Your task to perform on an android device: turn off notifications in google photos Image 0: 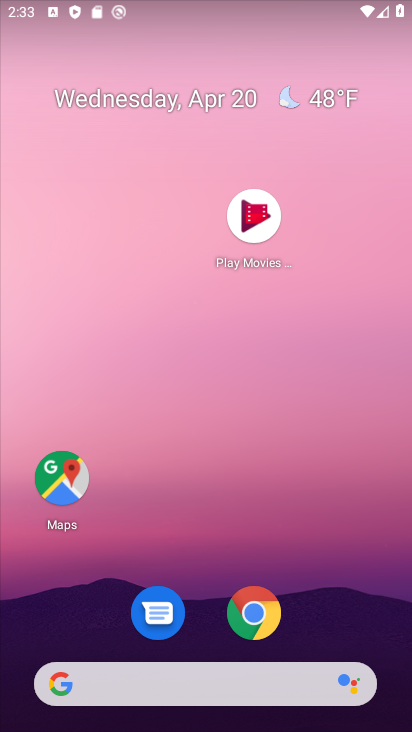
Step 0: drag from (186, 641) to (194, 131)
Your task to perform on an android device: turn off notifications in google photos Image 1: 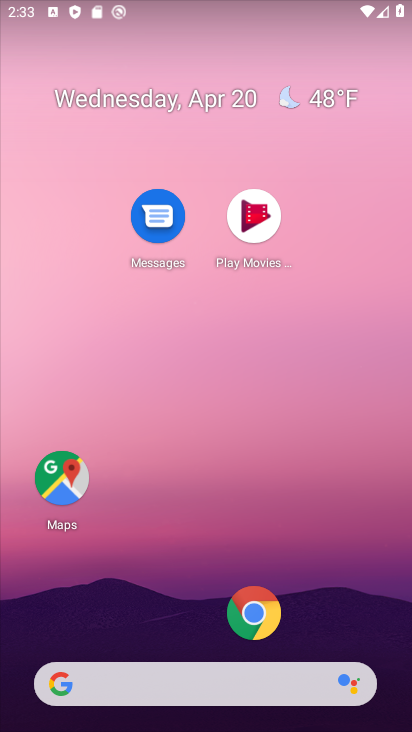
Step 1: drag from (205, 549) to (205, 1)
Your task to perform on an android device: turn off notifications in google photos Image 2: 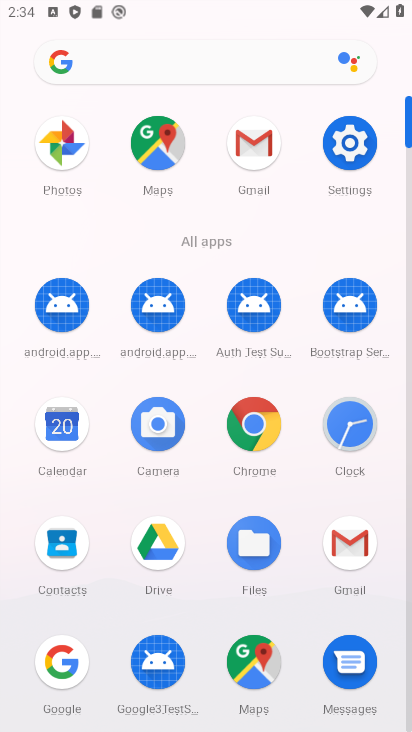
Step 2: click (69, 164)
Your task to perform on an android device: turn off notifications in google photos Image 3: 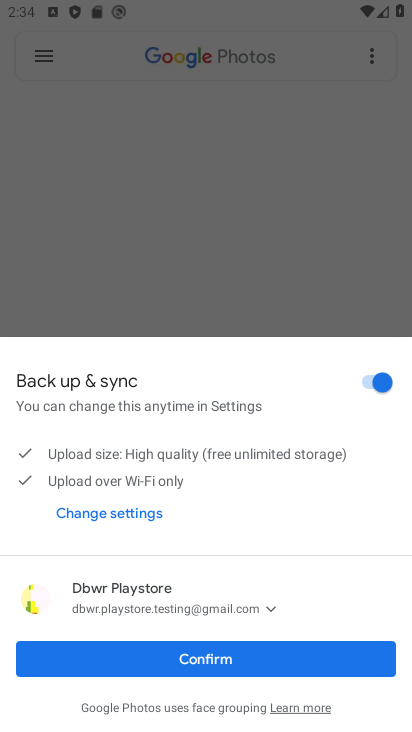
Step 3: click (207, 651)
Your task to perform on an android device: turn off notifications in google photos Image 4: 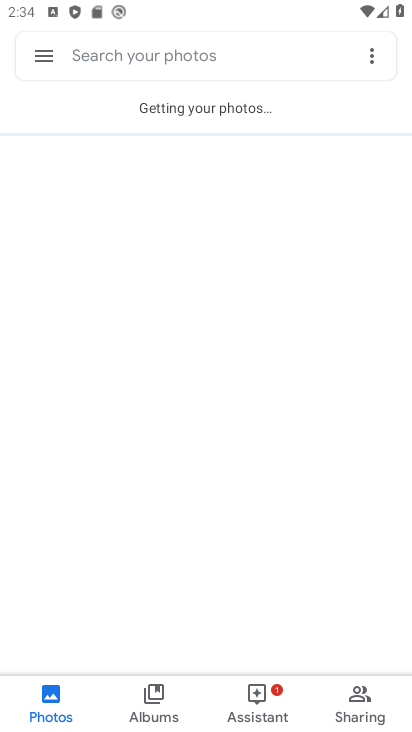
Step 4: click (38, 61)
Your task to perform on an android device: turn off notifications in google photos Image 5: 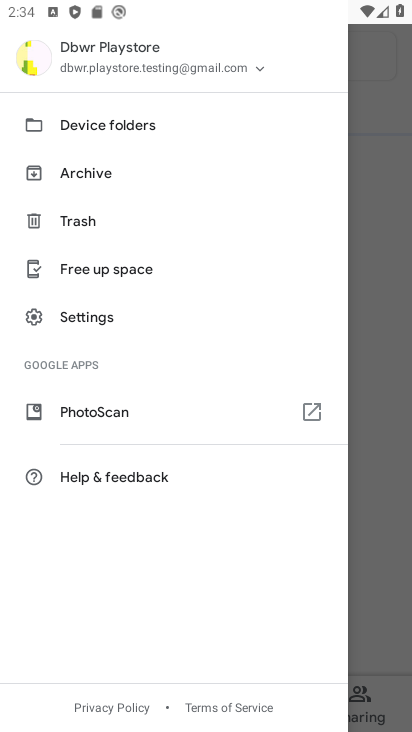
Step 5: click (130, 321)
Your task to perform on an android device: turn off notifications in google photos Image 6: 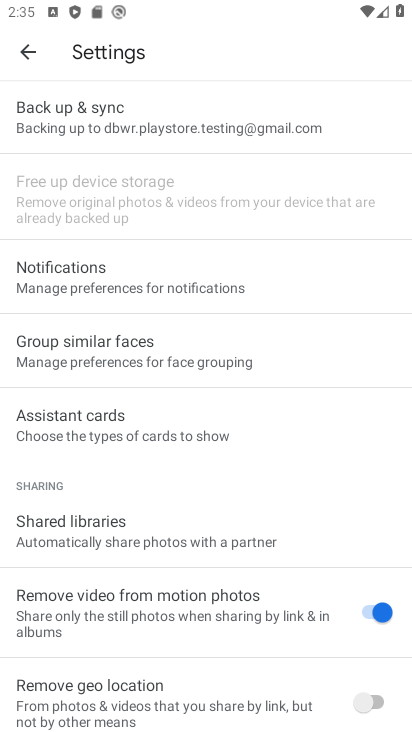
Step 6: click (128, 279)
Your task to perform on an android device: turn off notifications in google photos Image 7: 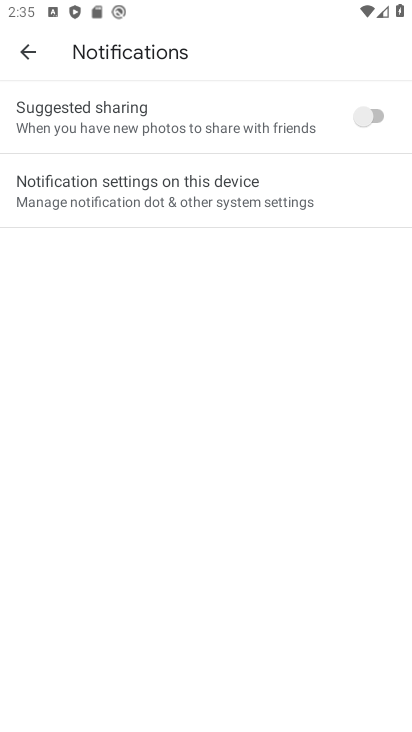
Step 7: click (232, 190)
Your task to perform on an android device: turn off notifications in google photos Image 8: 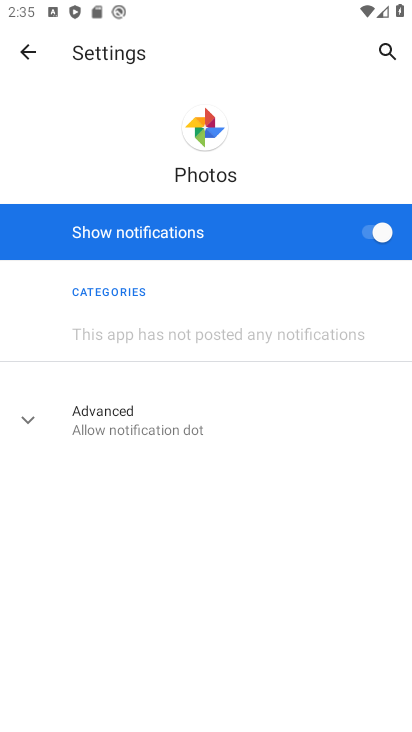
Step 8: click (384, 233)
Your task to perform on an android device: turn off notifications in google photos Image 9: 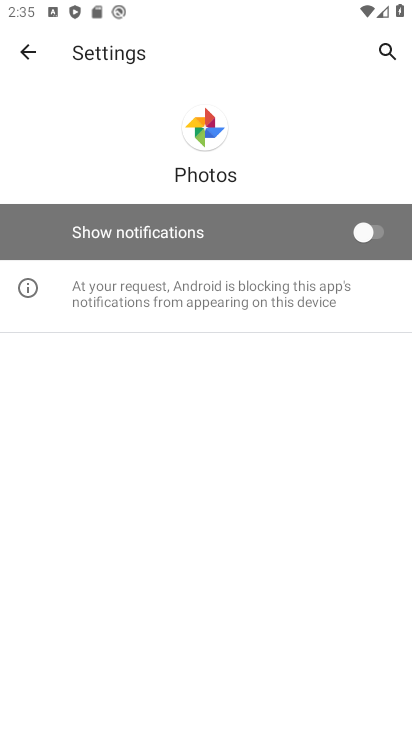
Step 9: task complete